Your task to perform on an android device: turn smart compose on in the gmail app Image 0: 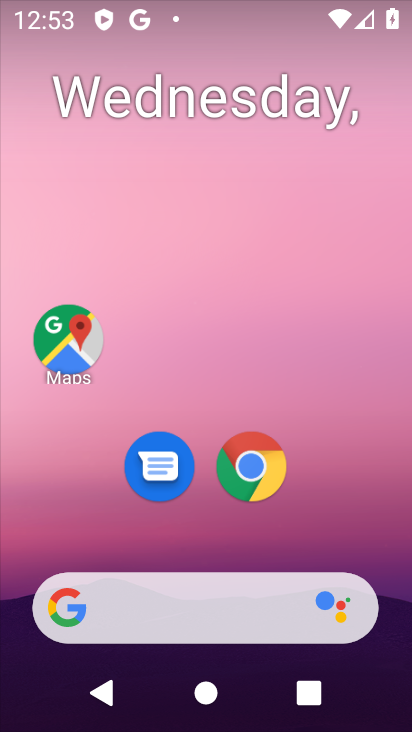
Step 0: drag from (311, 490) to (227, 19)
Your task to perform on an android device: turn smart compose on in the gmail app Image 1: 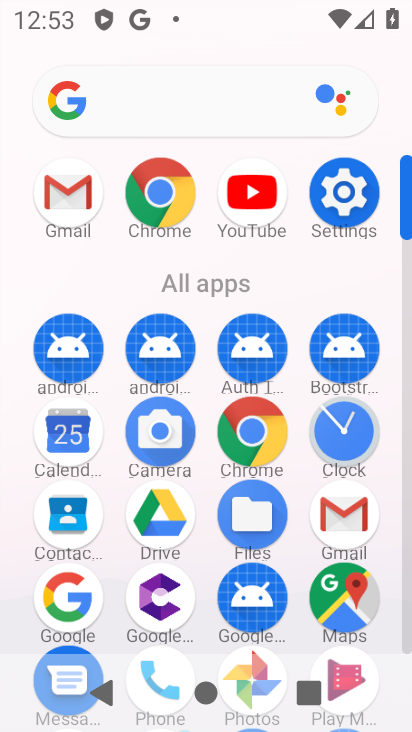
Step 1: click (87, 206)
Your task to perform on an android device: turn smart compose on in the gmail app Image 2: 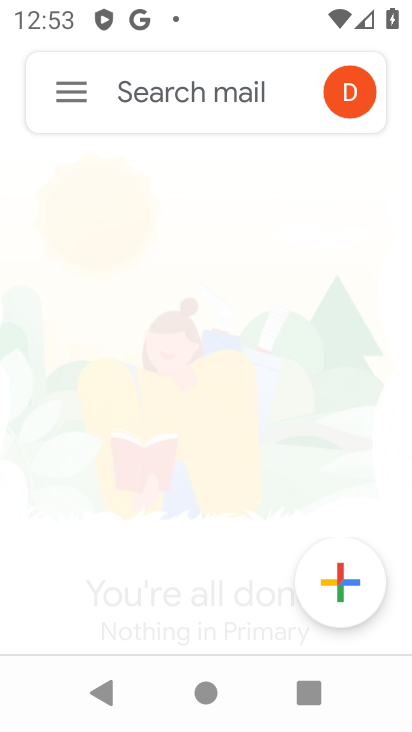
Step 2: drag from (267, 156) to (266, 439)
Your task to perform on an android device: turn smart compose on in the gmail app Image 3: 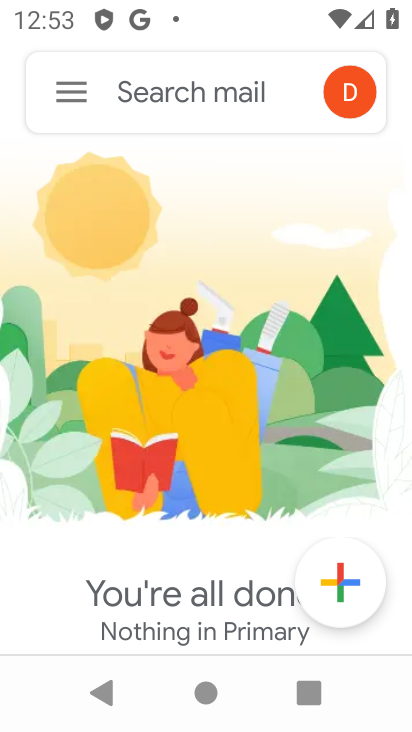
Step 3: click (58, 90)
Your task to perform on an android device: turn smart compose on in the gmail app Image 4: 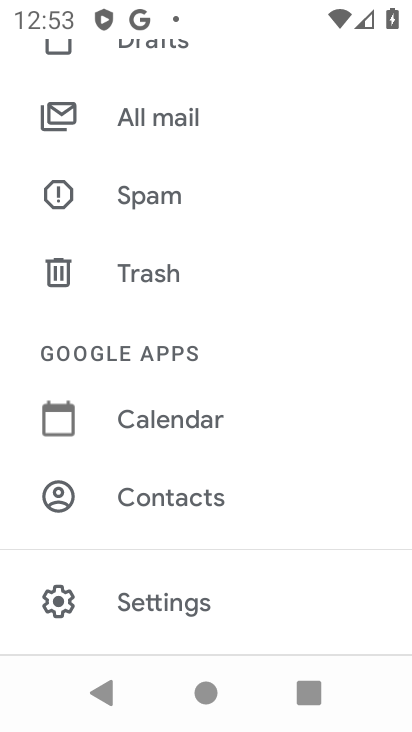
Step 4: drag from (189, 179) to (171, 525)
Your task to perform on an android device: turn smart compose on in the gmail app Image 5: 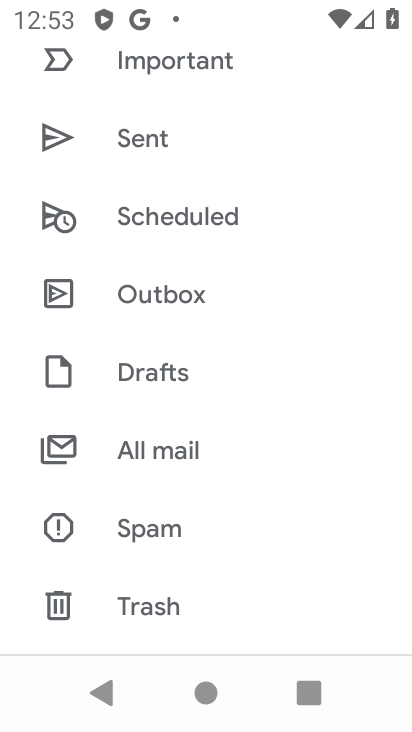
Step 5: drag from (233, 277) to (202, 529)
Your task to perform on an android device: turn smart compose on in the gmail app Image 6: 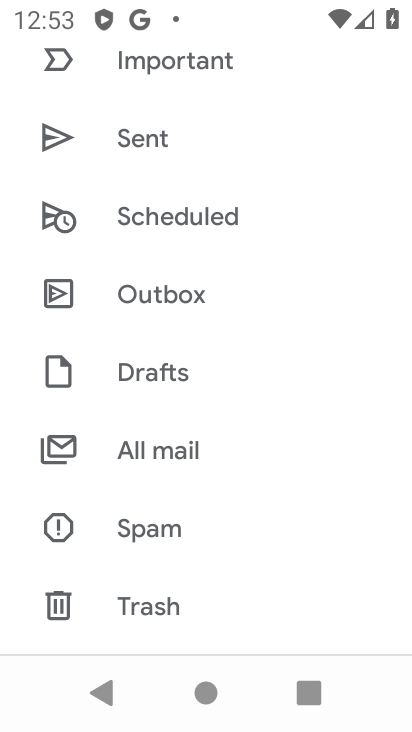
Step 6: drag from (275, 144) to (276, 511)
Your task to perform on an android device: turn smart compose on in the gmail app Image 7: 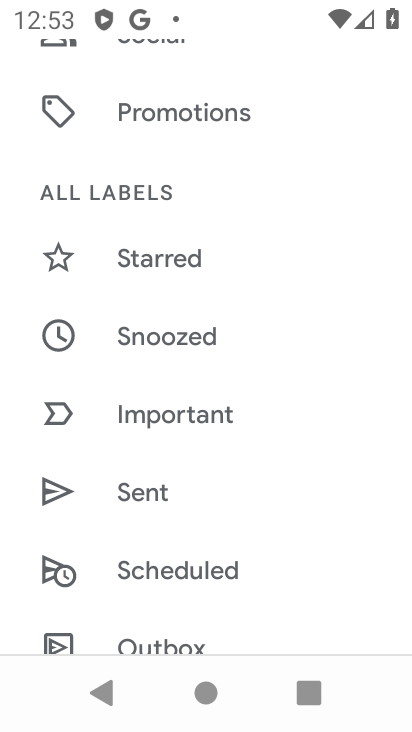
Step 7: drag from (251, 237) to (233, 534)
Your task to perform on an android device: turn smart compose on in the gmail app Image 8: 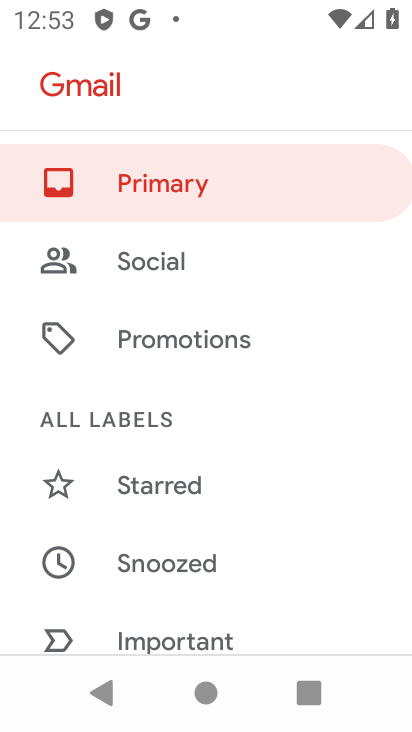
Step 8: drag from (281, 483) to (289, 115)
Your task to perform on an android device: turn smart compose on in the gmail app Image 9: 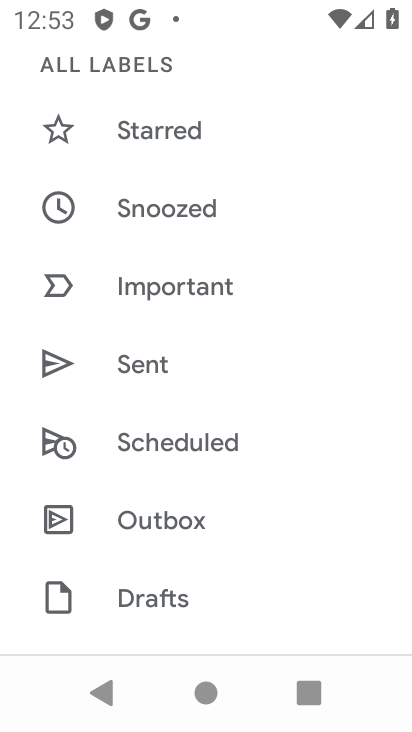
Step 9: drag from (278, 601) to (237, 234)
Your task to perform on an android device: turn smart compose on in the gmail app Image 10: 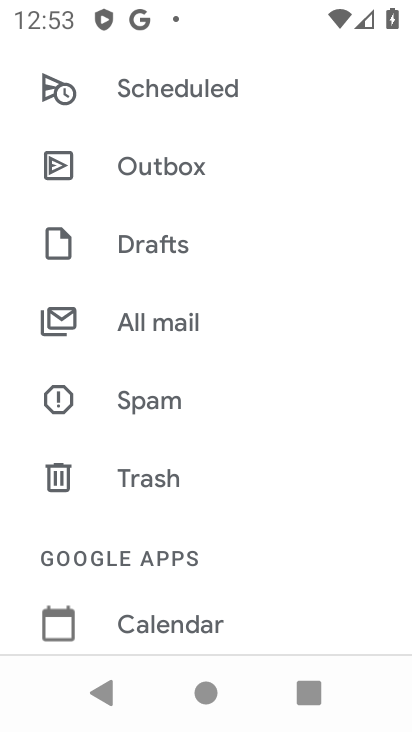
Step 10: drag from (237, 581) to (196, 153)
Your task to perform on an android device: turn smart compose on in the gmail app Image 11: 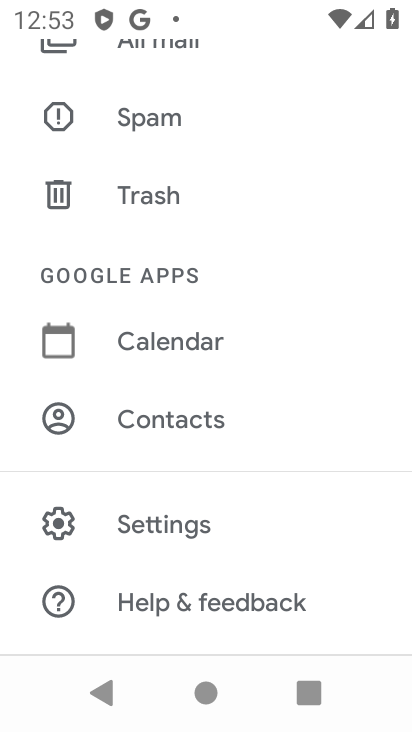
Step 11: click (166, 538)
Your task to perform on an android device: turn smart compose on in the gmail app Image 12: 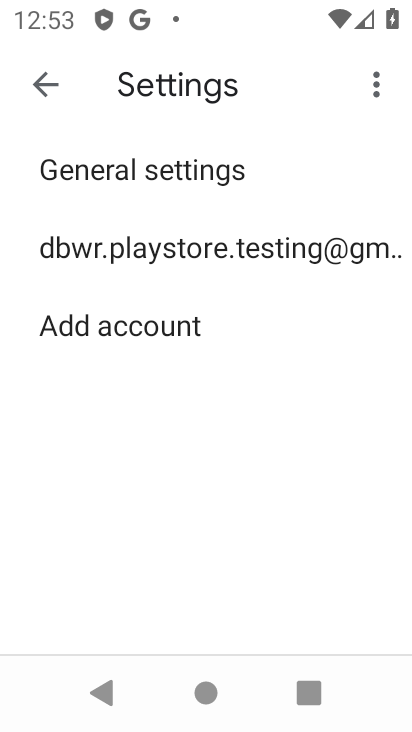
Step 12: click (381, 92)
Your task to perform on an android device: turn smart compose on in the gmail app Image 13: 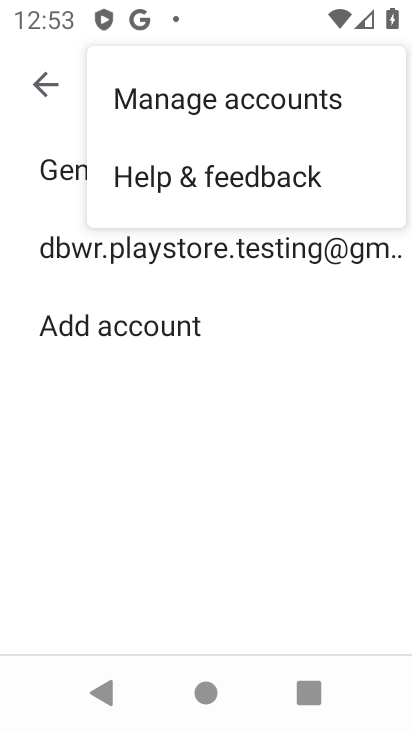
Step 13: task complete